Your task to perform on an android device: Open Google Image 0: 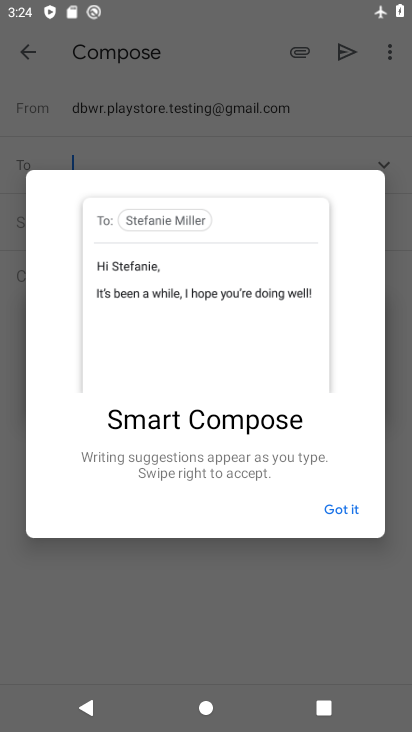
Step 0: press home button
Your task to perform on an android device: Open Google Image 1: 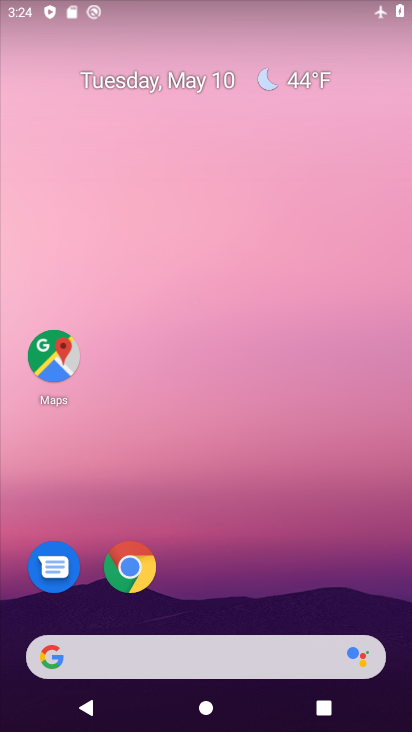
Step 1: drag from (229, 531) to (231, 26)
Your task to perform on an android device: Open Google Image 2: 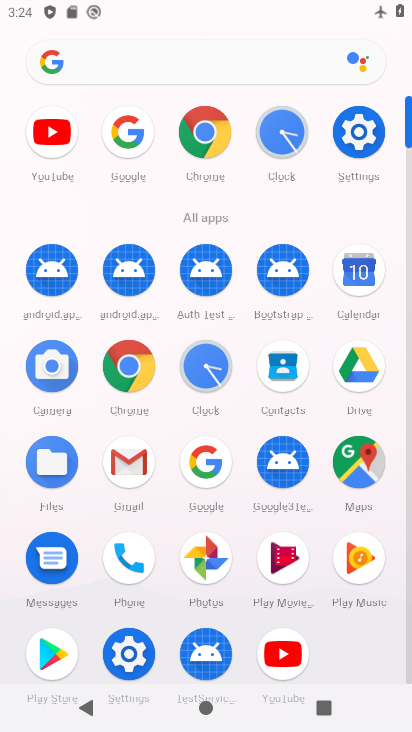
Step 2: click (124, 129)
Your task to perform on an android device: Open Google Image 3: 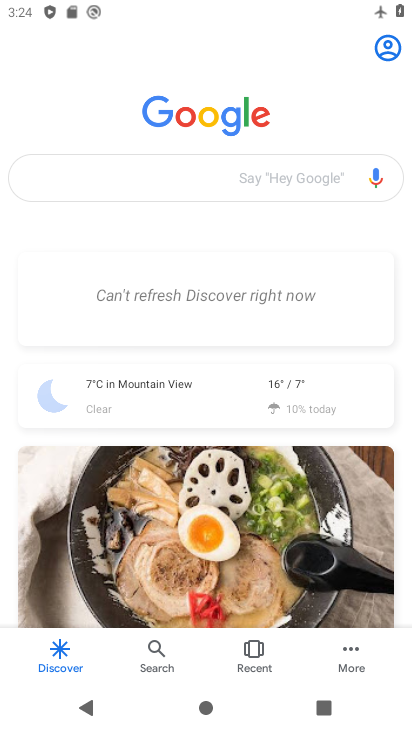
Step 3: task complete